Your task to perform on an android device: Is it going to rain today? Image 0: 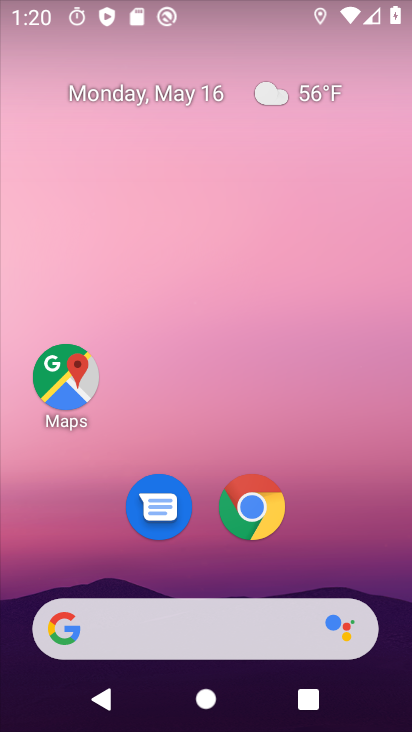
Step 0: drag from (196, 525) to (210, 113)
Your task to perform on an android device: Is it going to rain today? Image 1: 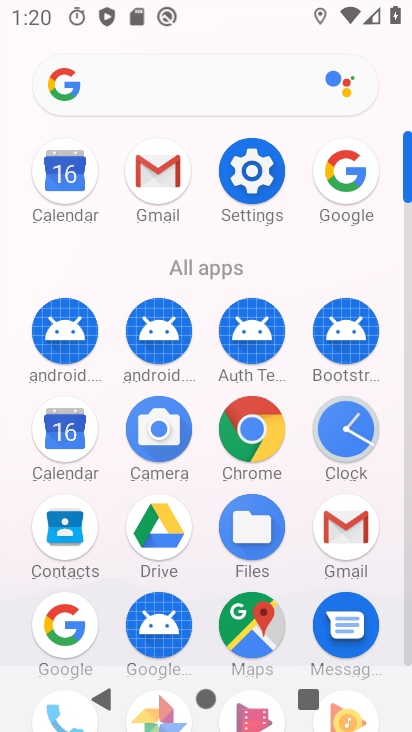
Step 1: click (65, 605)
Your task to perform on an android device: Is it going to rain today? Image 2: 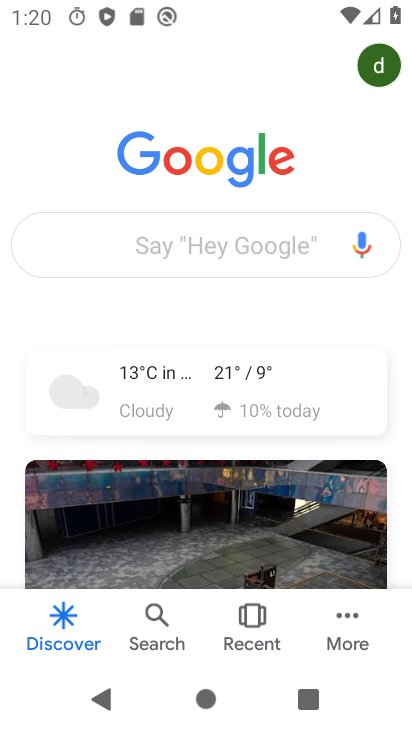
Step 2: click (162, 253)
Your task to perform on an android device: Is it going to rain today? Image 3: 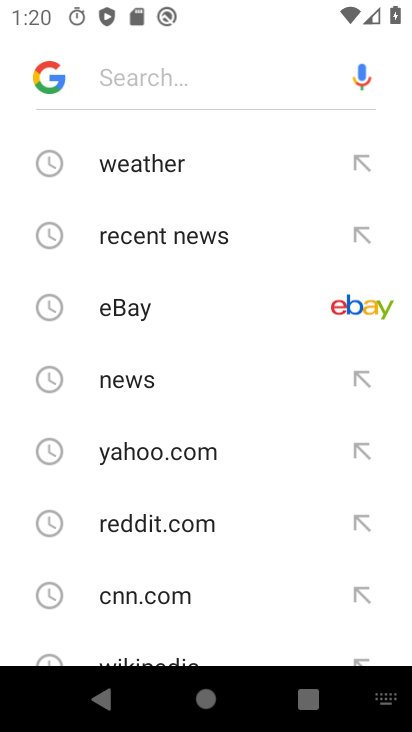
Step 3: drag from (224, 499) to (214, 157)
Your task to perform on an android device: Is it going to rain today? Image 4: 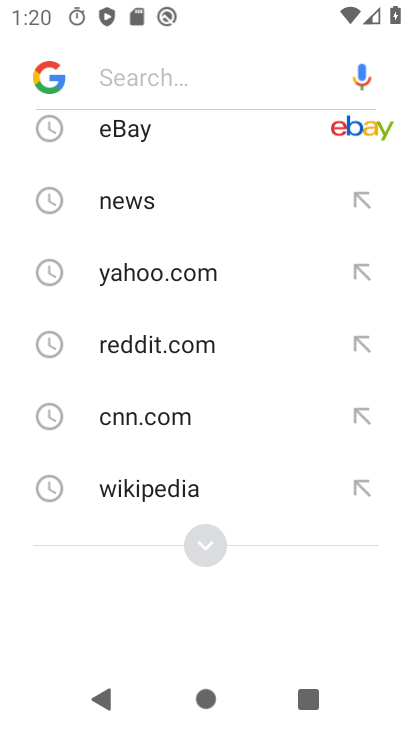
Step 4: type "is it going to rain today"
Your task to perform on an android device: Is it going to rain today? Image 5: 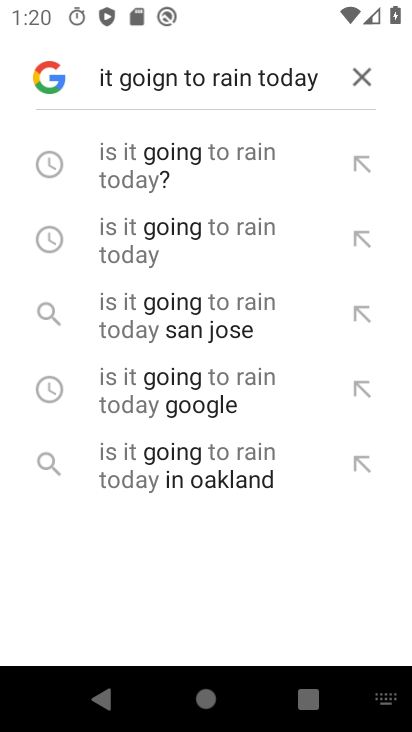
Step 5: click (223, 173)
Your task to perform on an android device: Is it going to rain today? Image 6: 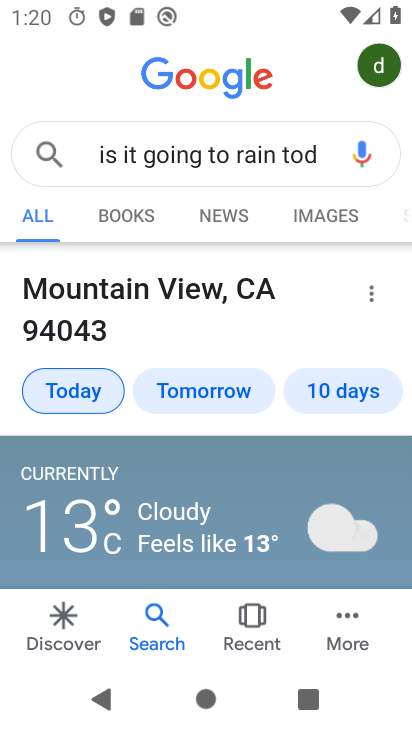
Step 6: task complete